Your task to perform on an android device: Show the shopping cart on costco. Add dell alienware to the cart on costco Image 0: 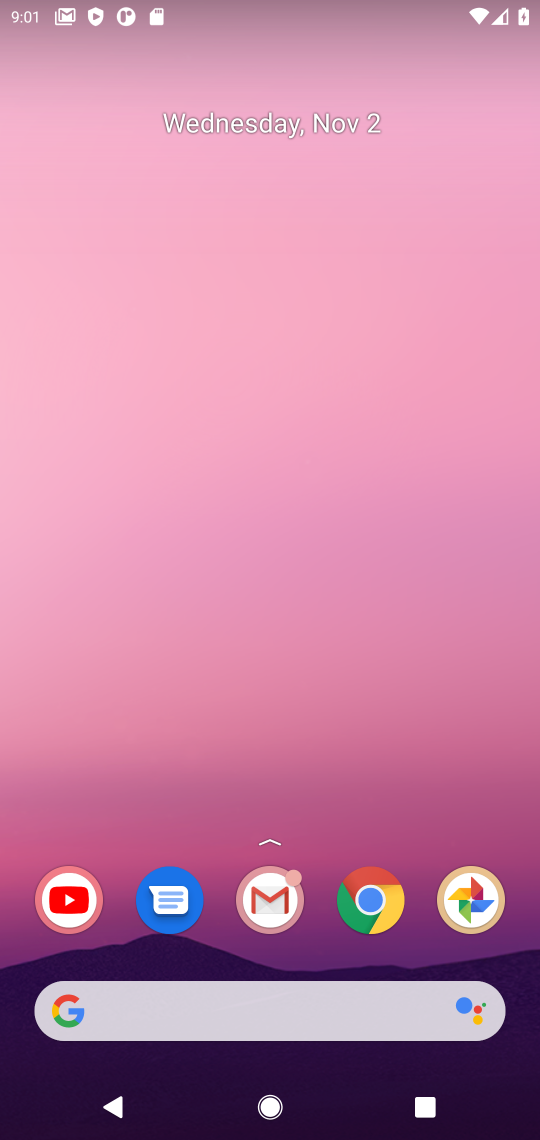
Step 0: click (377, 902)
Your task to perform on an android device: Show the shopping cart on costco. Add dell alienware to the cart on costco Image 1: 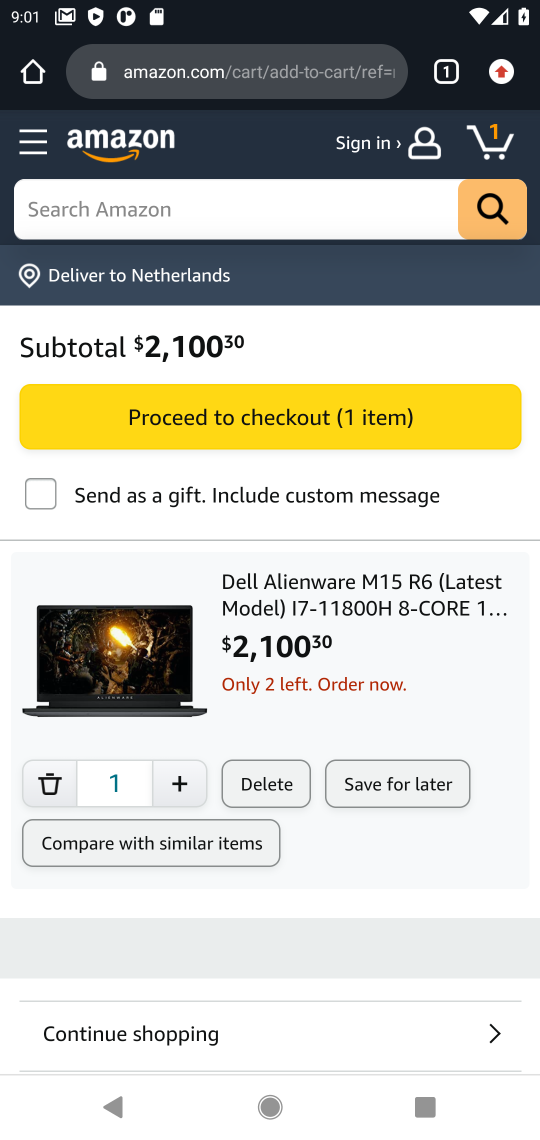
Step 1: click (331, 71)
Your task to perform on an android device: Show the shopping cart on costco. Add dell alienware to the cart on costco Image 2: 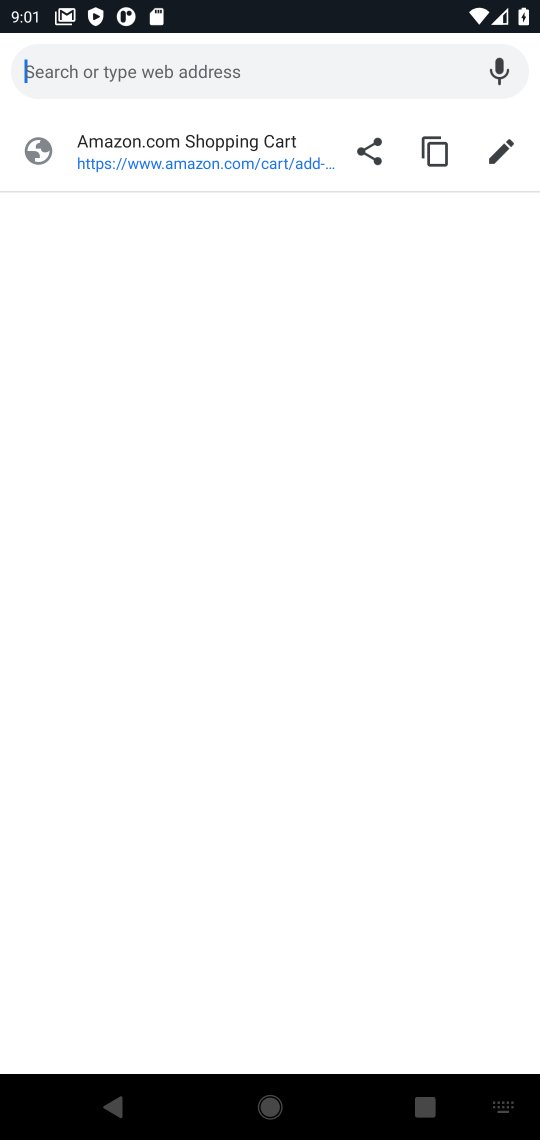
Step 2: type "costco"
Your task to perform on an android device: Show the shopping cart on costco. Add dell alienware to the cart on costco Image 3: 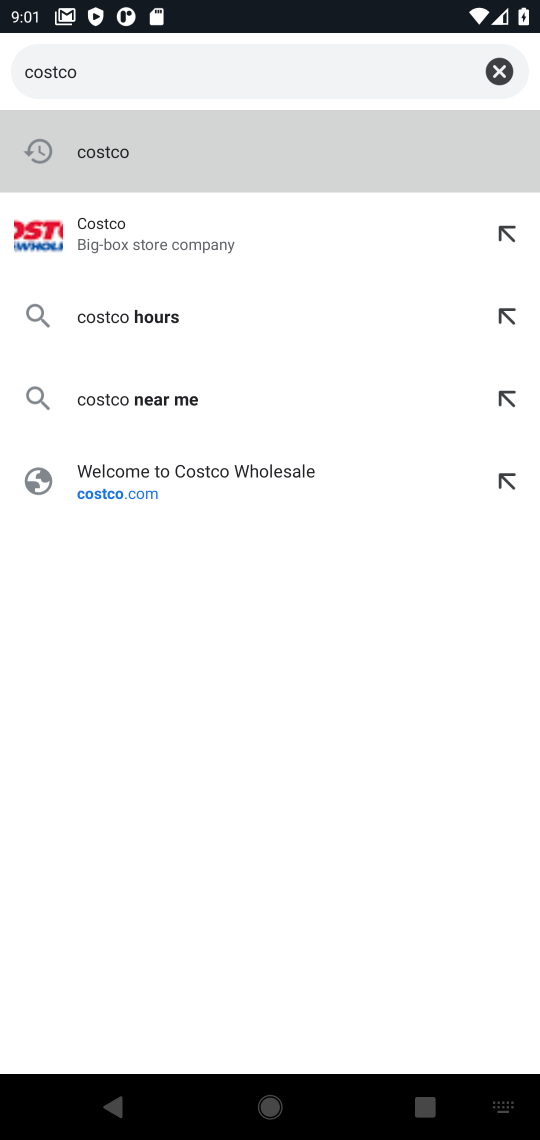
Step 3: click (122, 225)
Your task to perform on an android device: Show the shopping cart on costco. Add dell alienware to the cart on costco Image 4: 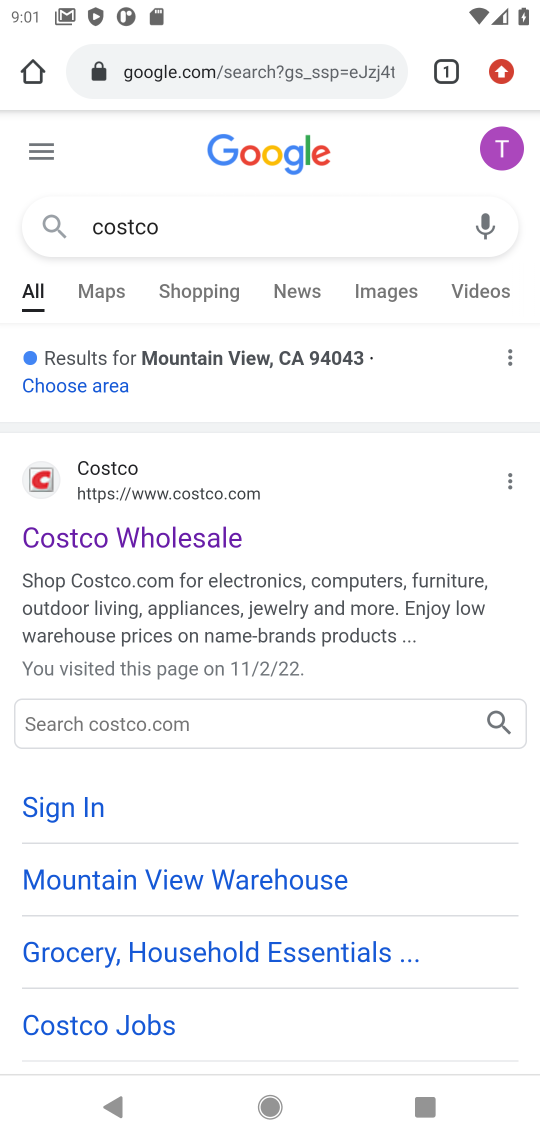
Step 4: click (57, 536)
Your task to perform on an android device: Show the shopping cart on costco. Add dell alienware to the cart on costco Image 5: 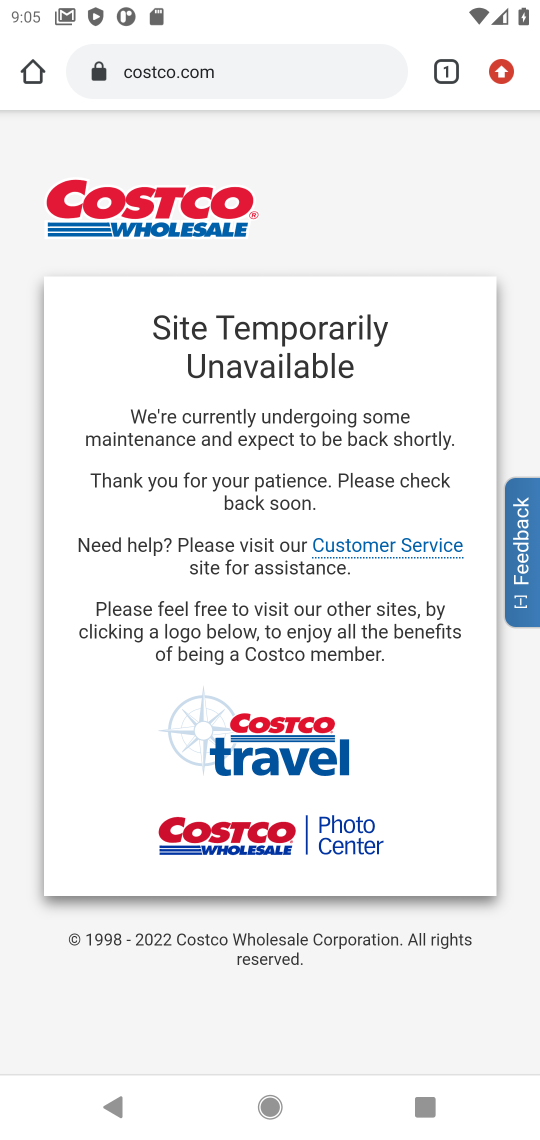
Step 5: task complete